Your task to perform on an android device: Open the map Image 0: 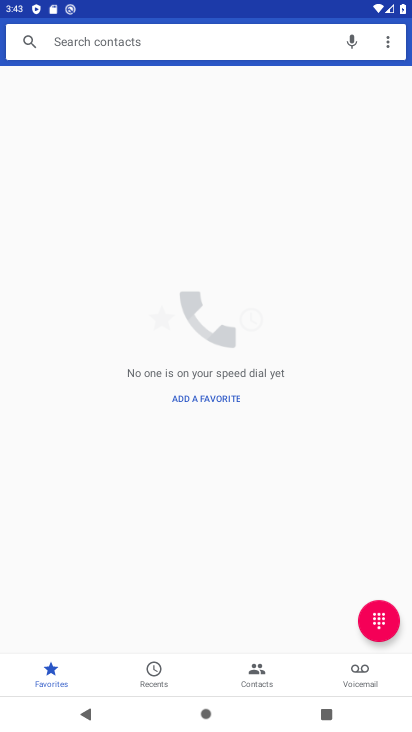
Step 0: press home button
Your task to perform on an android device: Open the map Image 1: 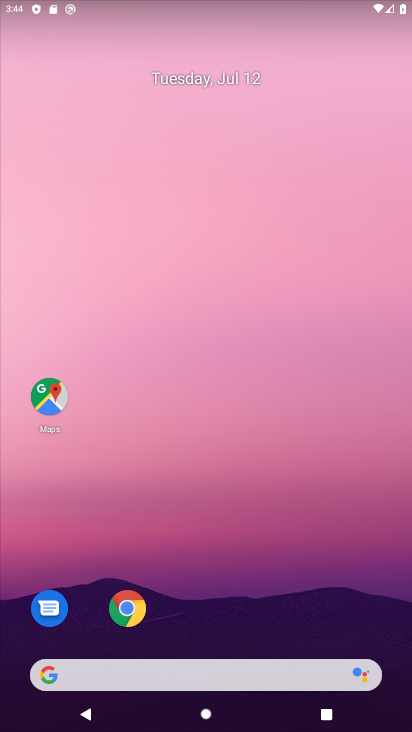
Step 1: click (54, 389)
Your task to perform on an android device: Open the map Image 2: 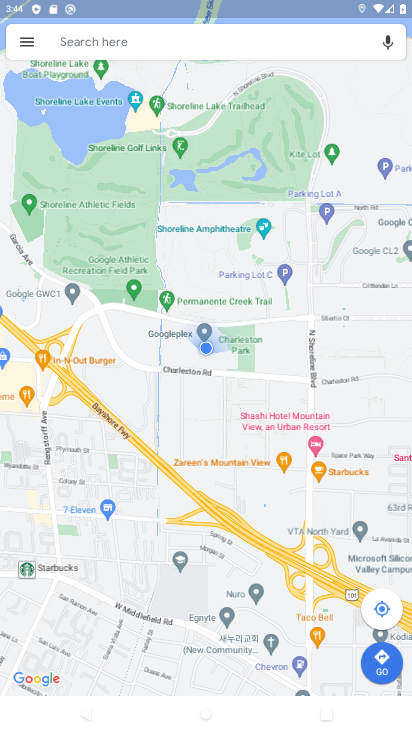
Step 2: task complete